Your task to perform on an android device: Empty the shopping cart on amazon. Search for razer thresher on amazon, select the first entry, and add it to the cart. Image 0: 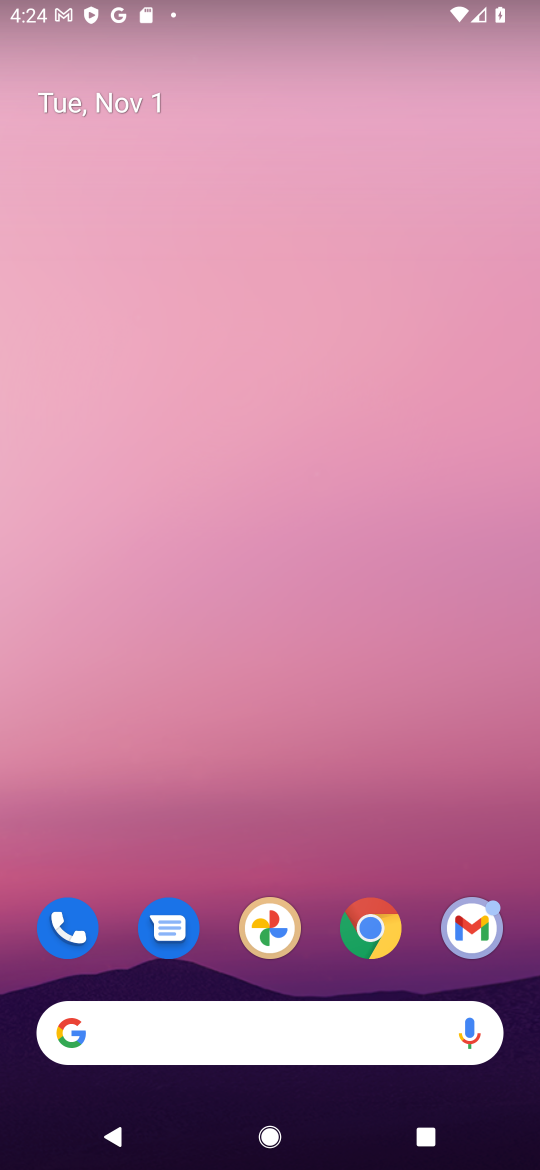
Step 0: click (383, 931)
Your task to perform on an android device: Empty the shopping cart on amazon. Search for razer thresher on amazon, select the first entry, and add it to the cart. Image 1: 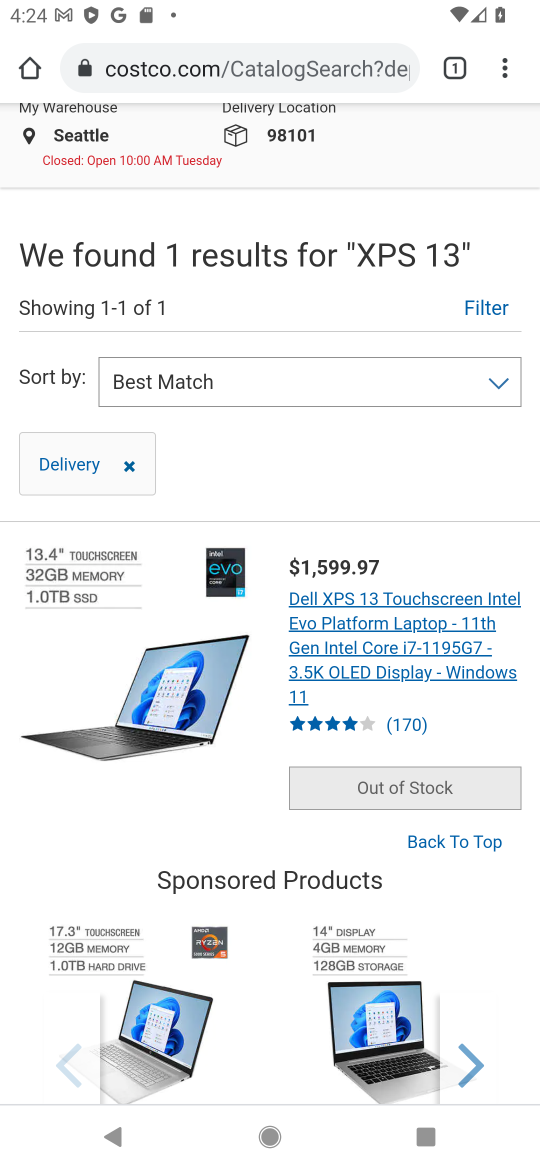
Step 1: click (274, 64)
Your task to perform on an android device: Empty the shopping cart on amazon. Search for razer thresher on amazon, select the first entry, and add it to the cart. Image 2: 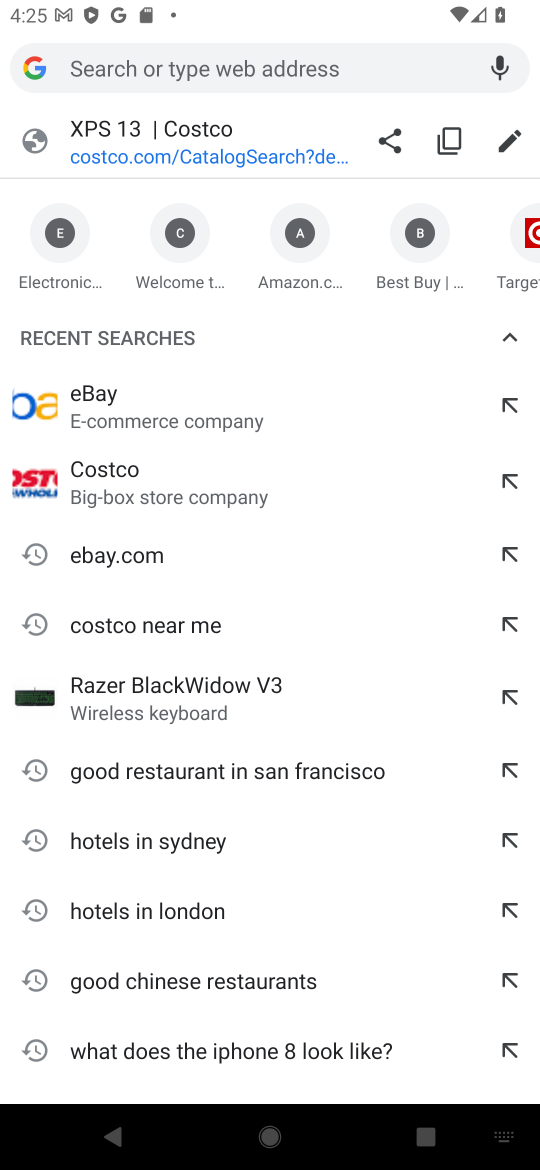
Step 2: type "amazon"
Your task to perform on an android device: Empty the shopping cart on amazon. Search for razer thresher on amazon, select the first entry, and add it to the cart. Image 3: 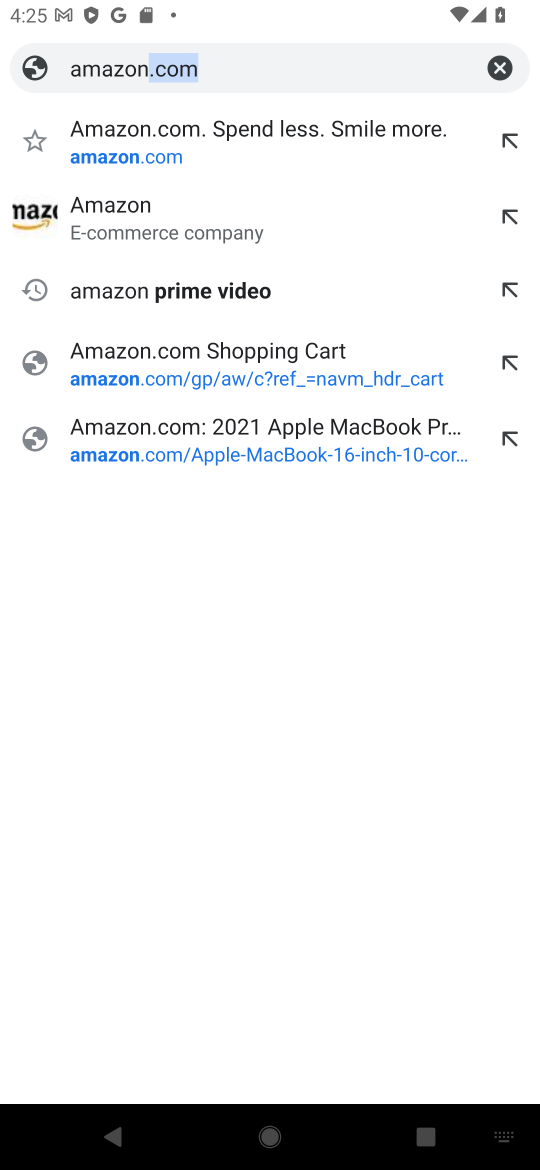
Step 3: press enter
Your task to perform on an android device: Empty the shopping cart on amazon. Search for razer thresher on amazon, select the first entry, and add it to the cart. Image 4: 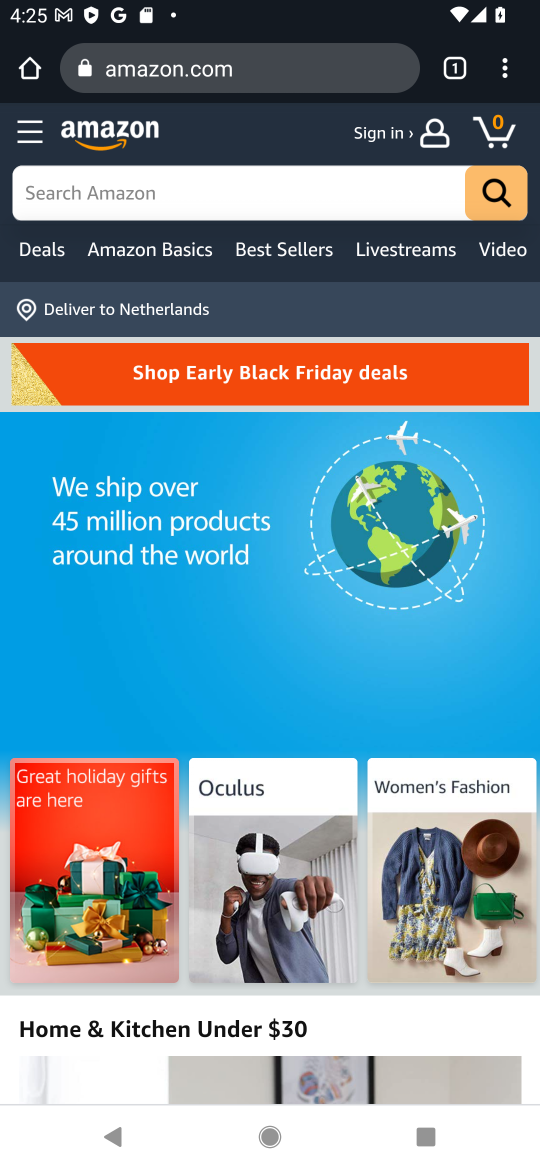
Step 4: click (491, 129)
Your task to perform on an android device: Empty the shopping cart on amazon. Search for razer thresher on amazon, select the first entry, and add it to the cart. Image 5: 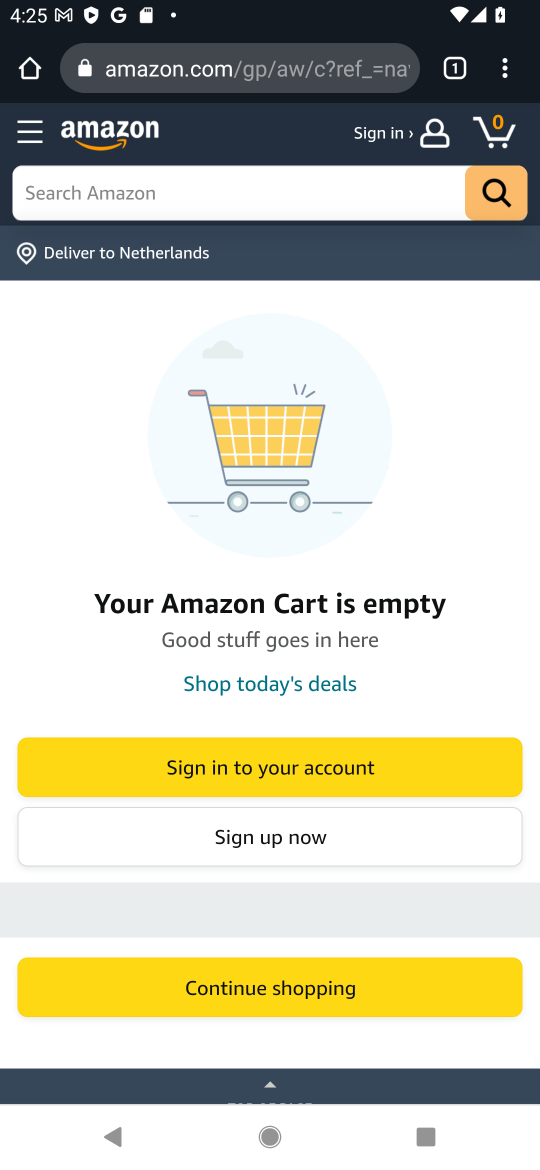
Step 5: click (306, 198)
Your task to perform on an android device: Empty the shopping cart on amazon. Search for razer thresher on amazon, select the first entry, and add it to the cart. Image 6: 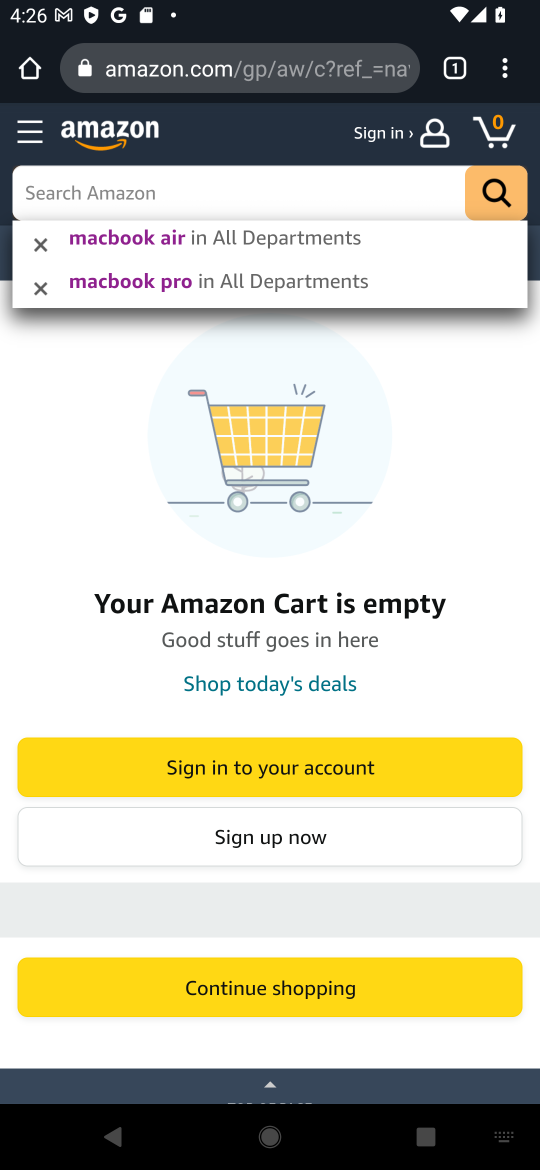
Step 6: type "razer thresher"
Your task to perform on an android device: Empty the shopping cart on amazon. Search for razer thresher on amazon, select the first entry, and add it to the cart. Image 7: 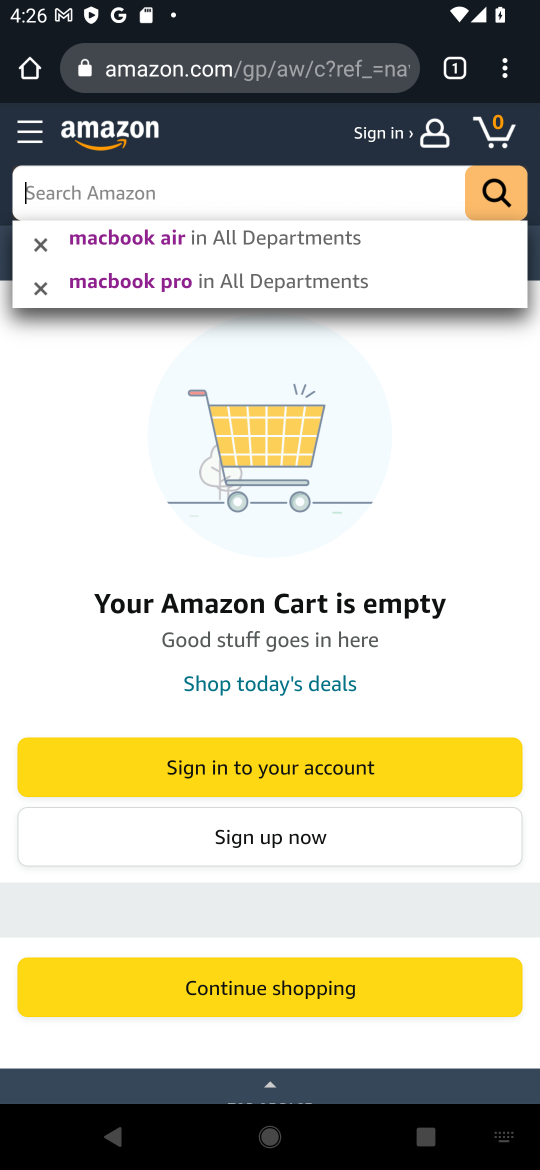
Step 7: type ""
Your task to perform on an android device: Empty the shopping cart on amazon. Search for razer thresher on amazon, select the first entry, and add it to the cart. Image 8: 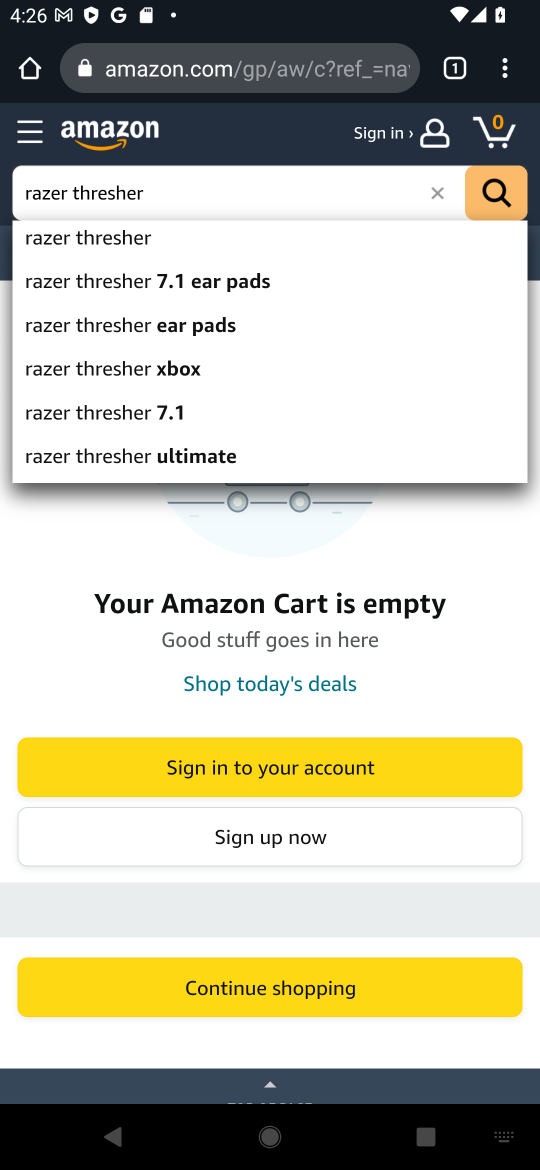
Step 8: press enter
Your task to perform on an android device: Empty the shopping cart on amazon. Search for razer thresher on amazon, select the first entry, and add it to the cart. Image 9: 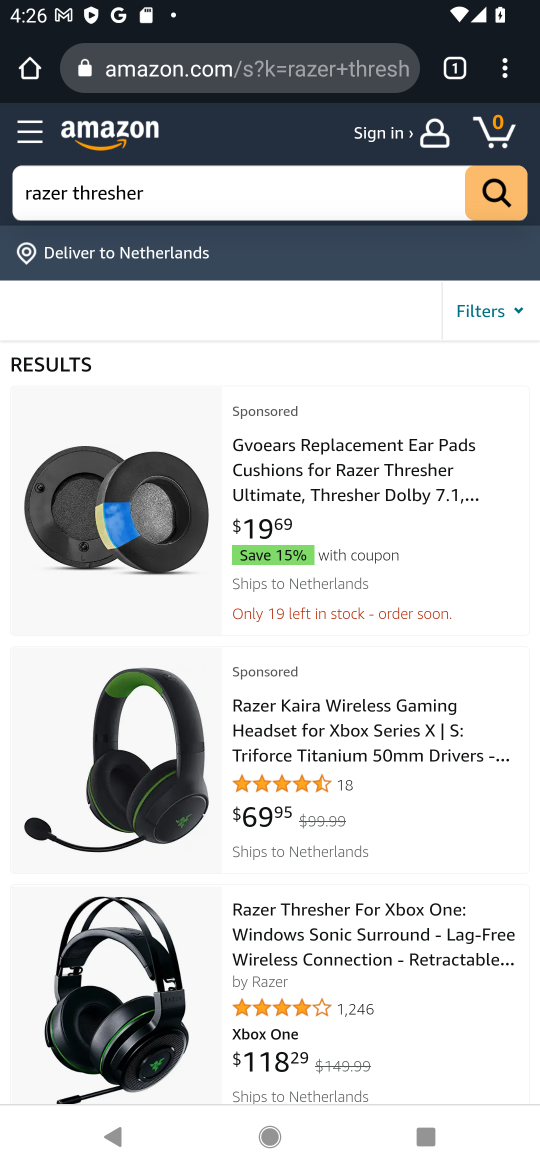
Step 9: drag from (393, 845) to (406, 759)
Your task to perform on an android device: Empty the shopping cart on amazon. Search for razer thresher on amazon, select the first entry, and add it to the cart. Image 10: 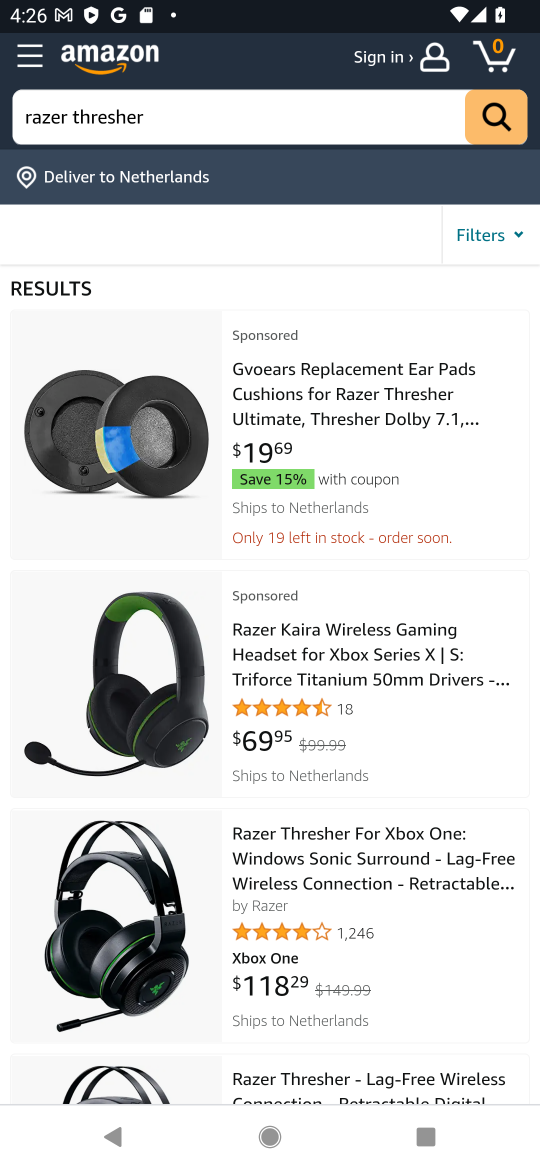
Step 10: click (345, 850)
Your task to perform on an android device: Empty the shopping cart on amazon. Search for razer thresher on amazon, select the first entry, and add it to the cart. Image 11: 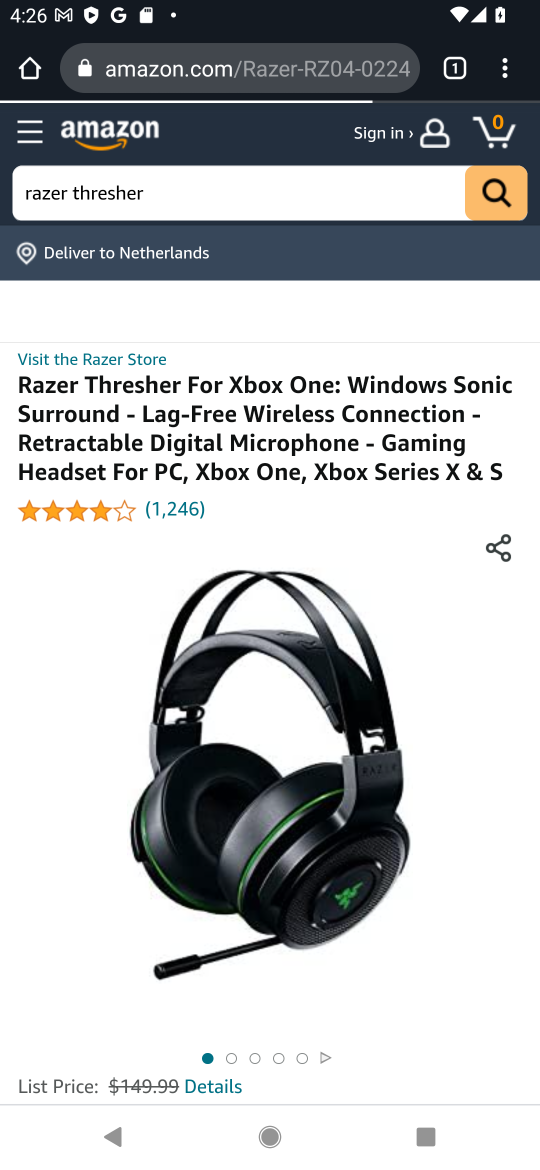
Step 11: drag from (422, 924) to (368, 430)
Your task to perform on an android device: Empty the shopping cart on amazon. Search for razer thresher on amazon, select the first entry, and add it to the cart. Image 12: 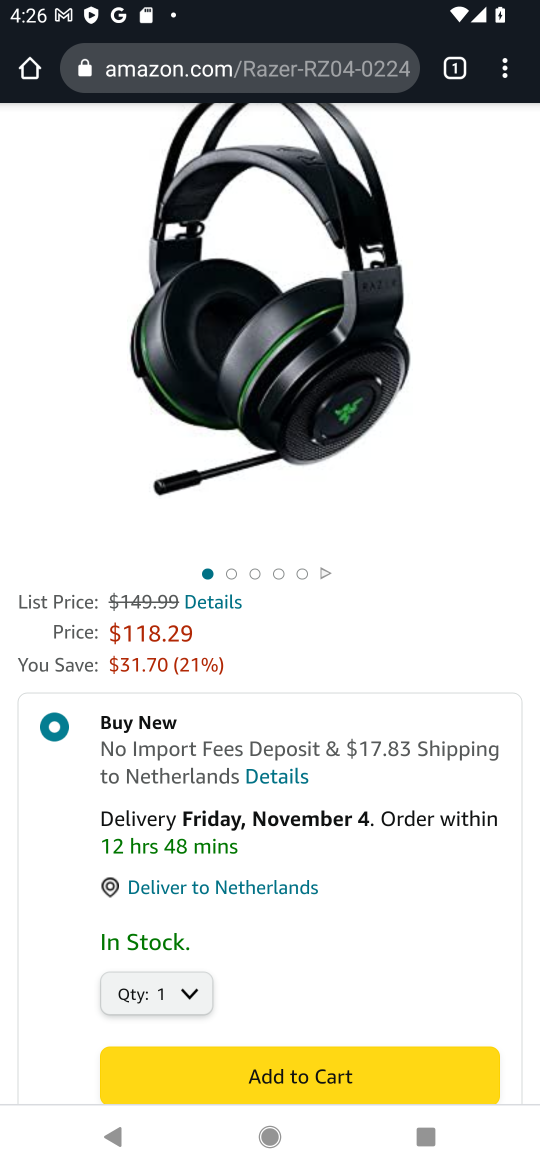
Step 12: click (350, 1070)
Your task to perform on an android device: Empty the shopping cart on amazon. Search for razer thresher on amazon, select the first entry, and add it to the cart. Image 13: 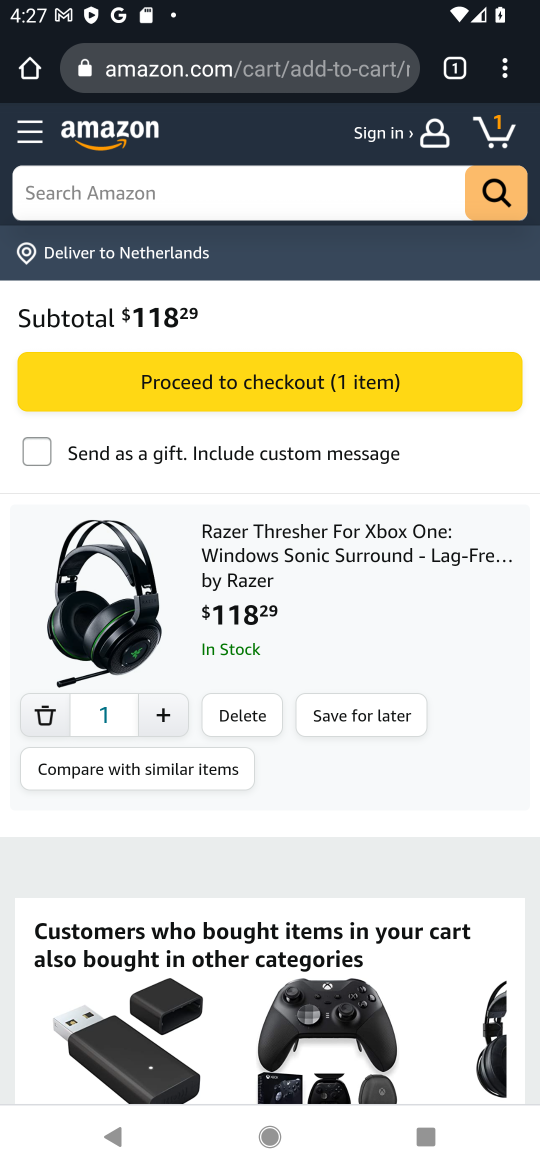
Step 13: task complete